Your task to perform on an android device: Go to Reddit.com Image 0: 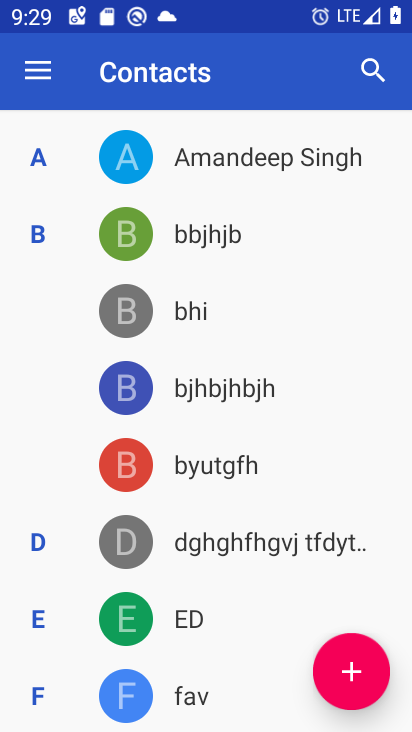
Step 0: press home button
Your task to perform on an android device: Go to Reddit.com Image 1: 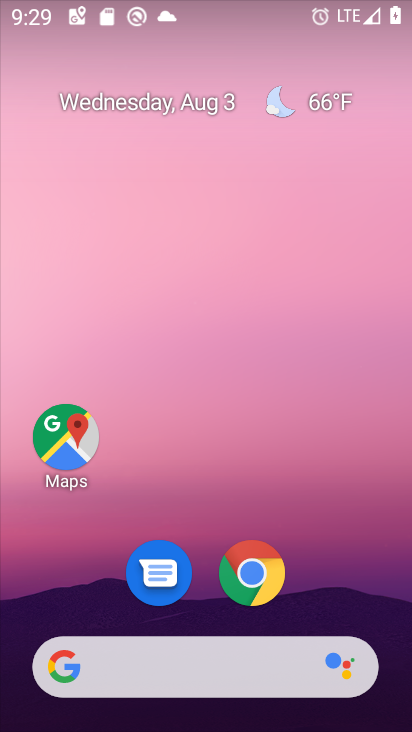
Step 1: click (252, 577)
Your task to perform on an android device: Go to Reddit.com Image 2: 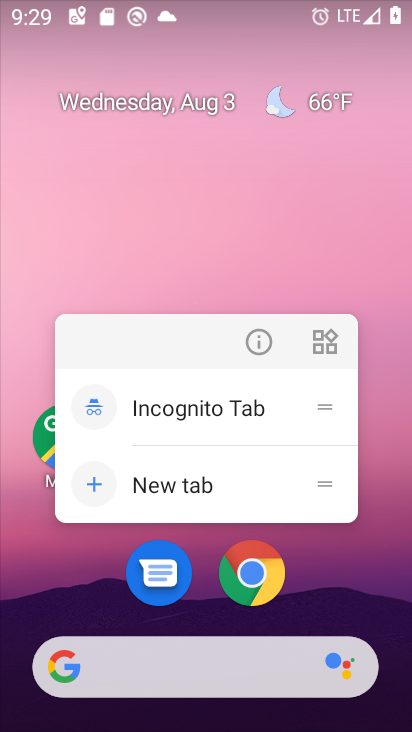
Step 2: click (252, 577)
Your task to perform on an android device: Go to Reddit.com Image 3: 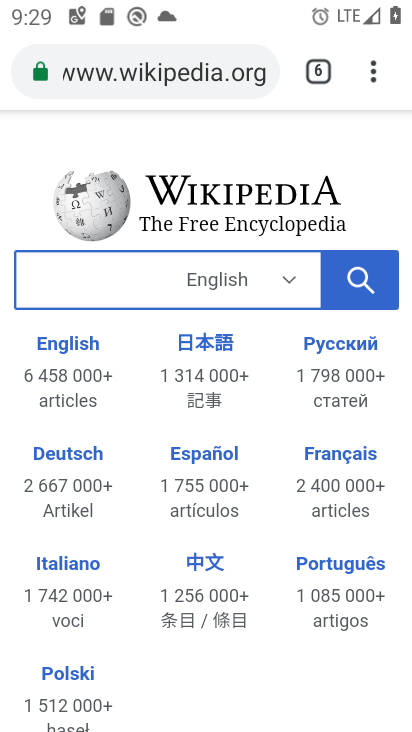
Step 3: click (178, 81)
Your task to perform on an android device: Go to Reddit.com Image 4: 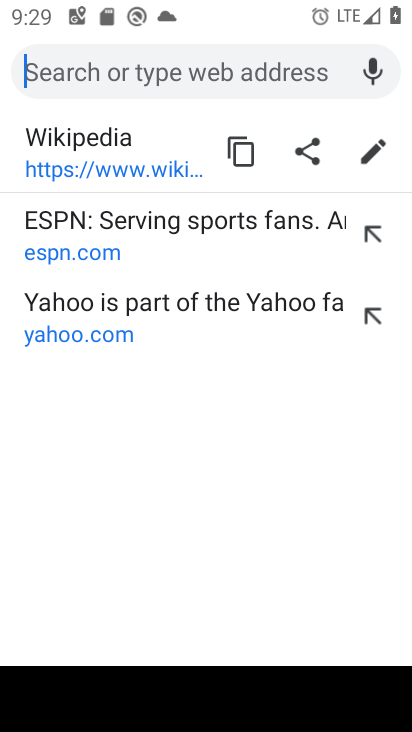
Step 4: type "reddit.com"
Your task to perform on an android device: Go to Reddit.com Image 5: 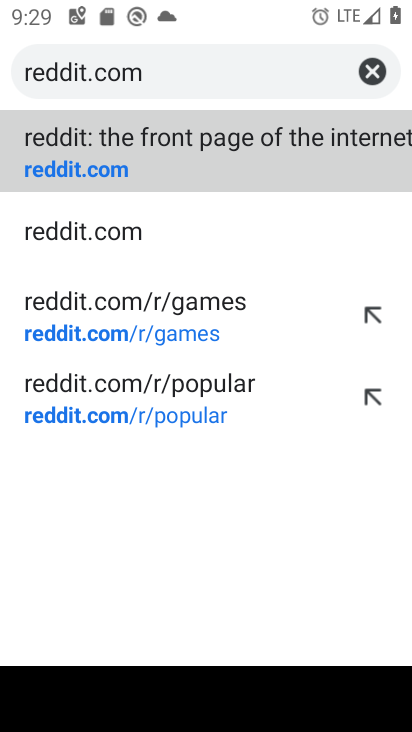
Step 5: click (90, 151)
Your task to perform on an android device: Go to Reddit.com Image 6: 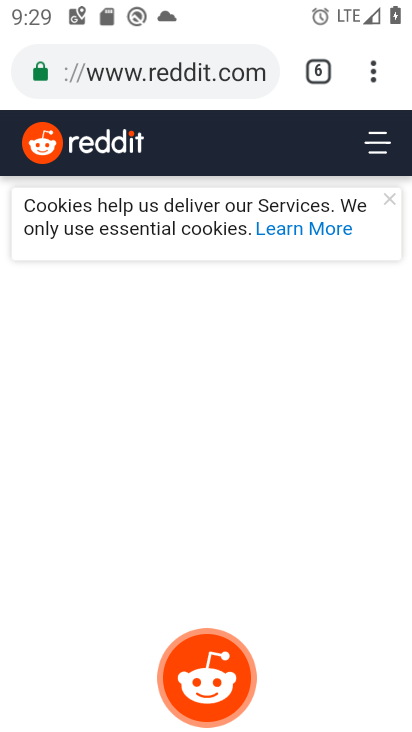
Step 6: task complete